Your task to perform on an android device: Go to network settings Image 0: 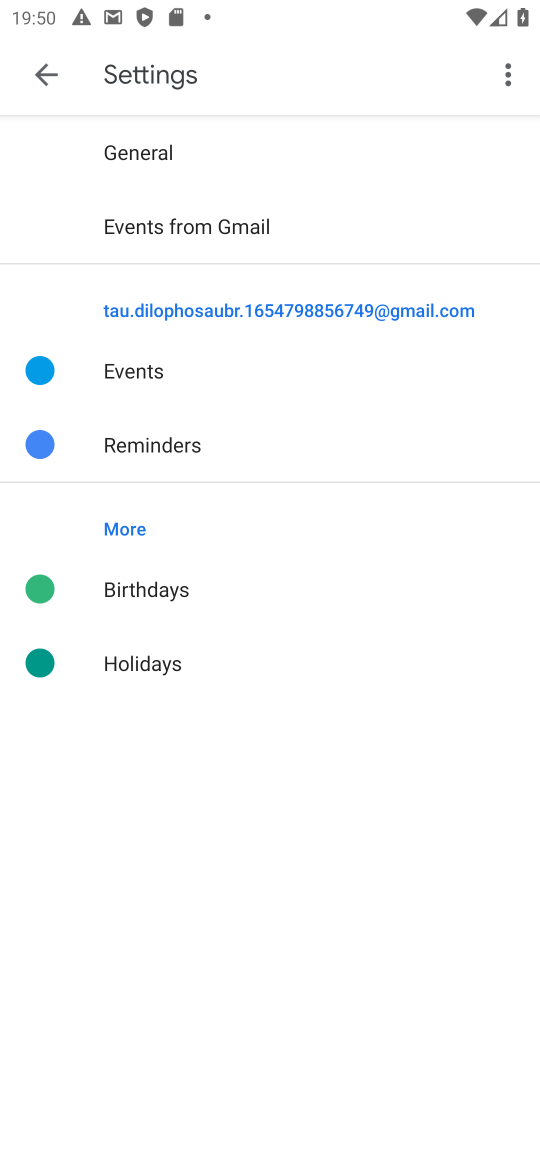
Step 0: press home button
Your task to perform on an android device: Go to network settings Image 1: 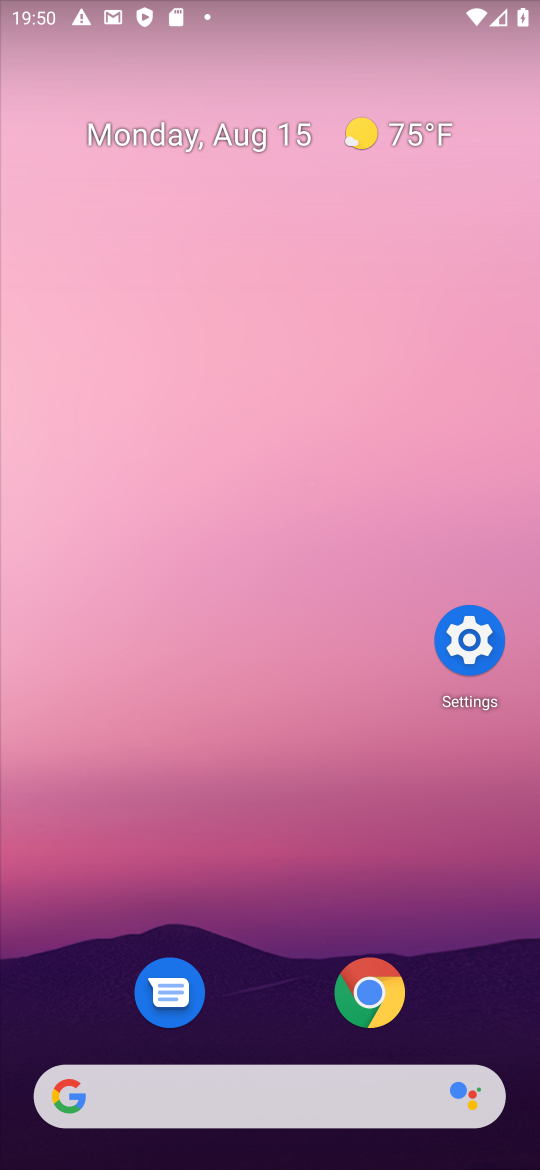
Step 1: click (467, 637)
Your task to perform on an android device: Go to network settings Image 2: 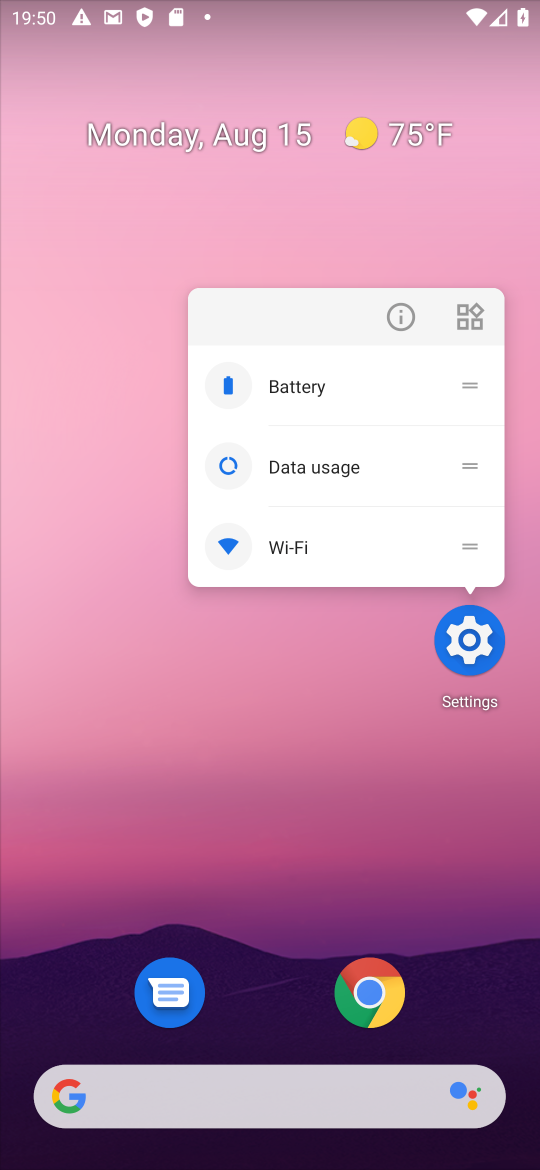
Step 2: click (467, 638)
Your task to perform on an android device: Go to network settings Image 3: 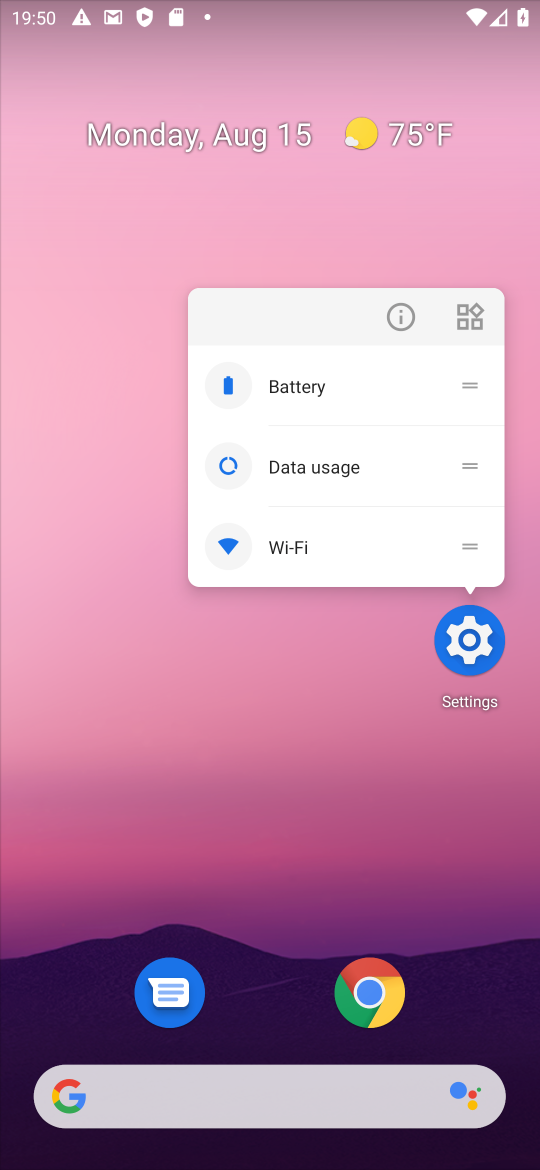
Step 3: click (467, 640)
Your task to perform on an android device: Go to network settings Image 4: 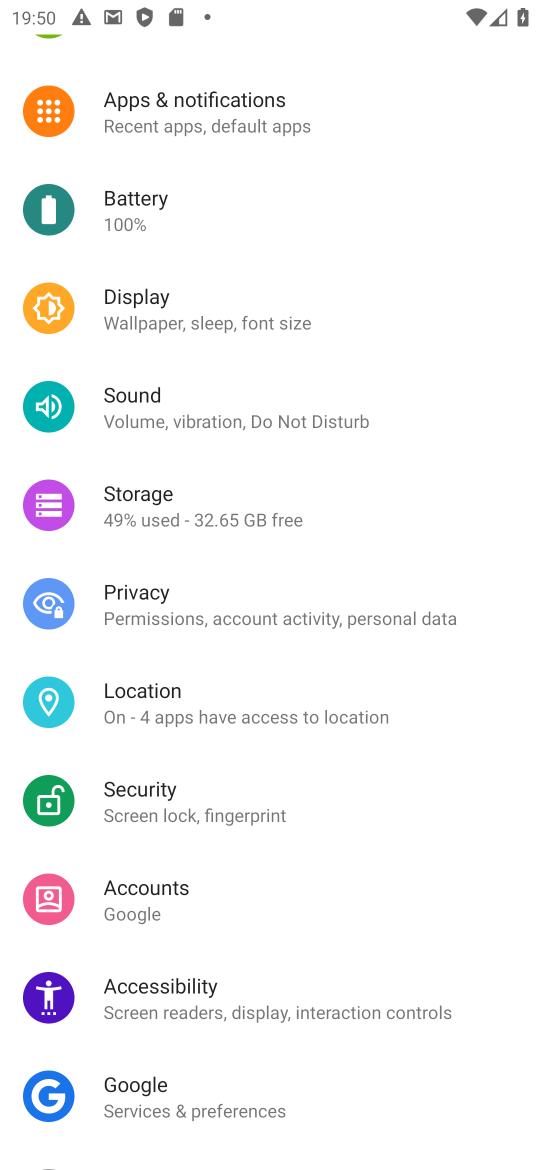
Step 4: drag from (309, 175) to (370, 941)
Your task to perform on an android device: Go to network settings Image 5: 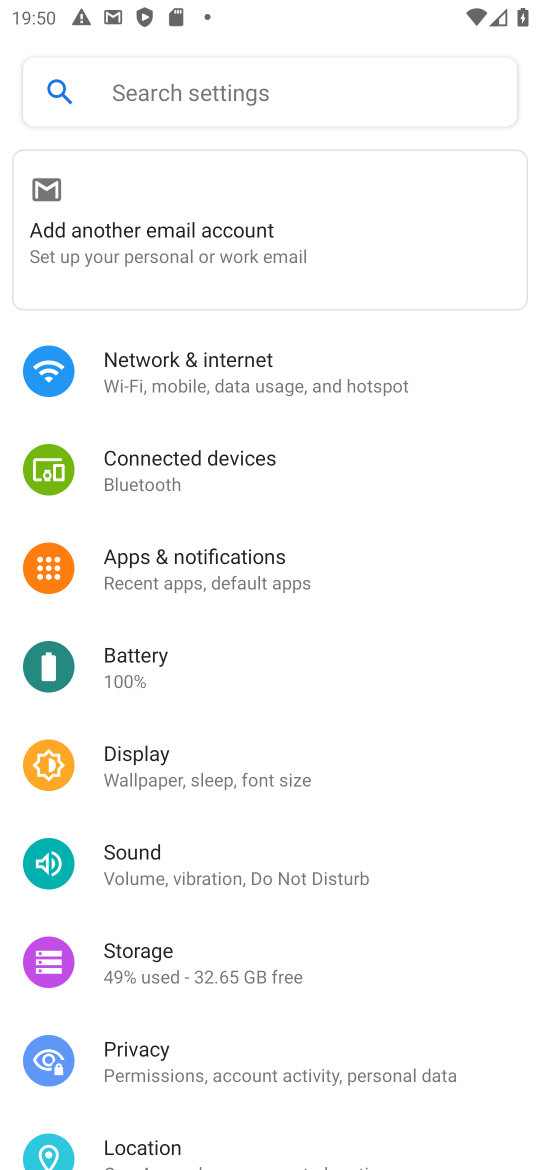
Step 5: click (183, 352)
Your task to perform on an android device: Go to network settings Image 6: 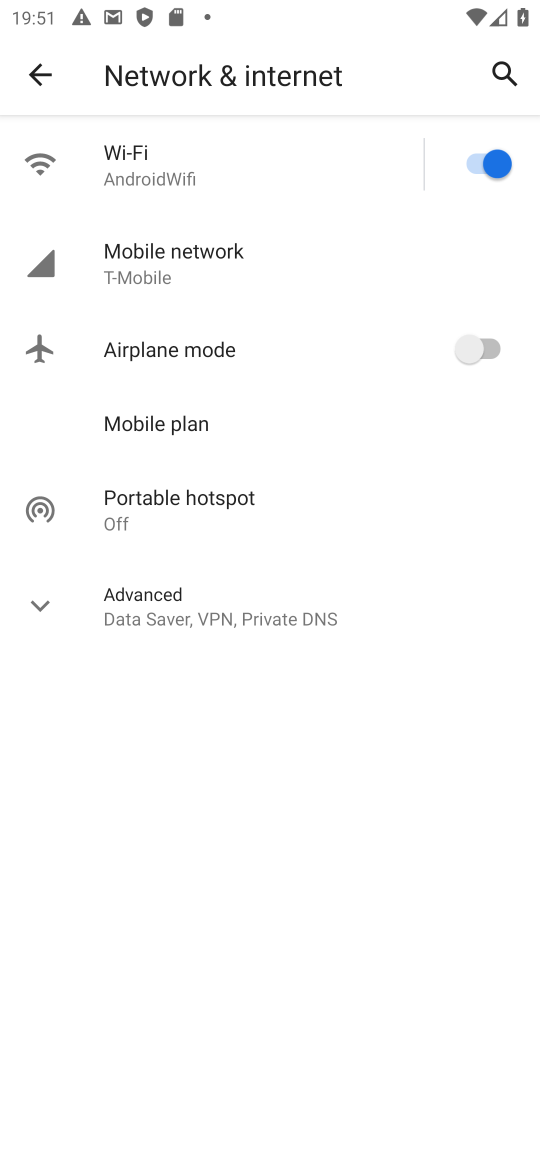
Step 6: task complete